Your task to perform on an android device: Open calendar and show me the fourth week of next month Image 0: 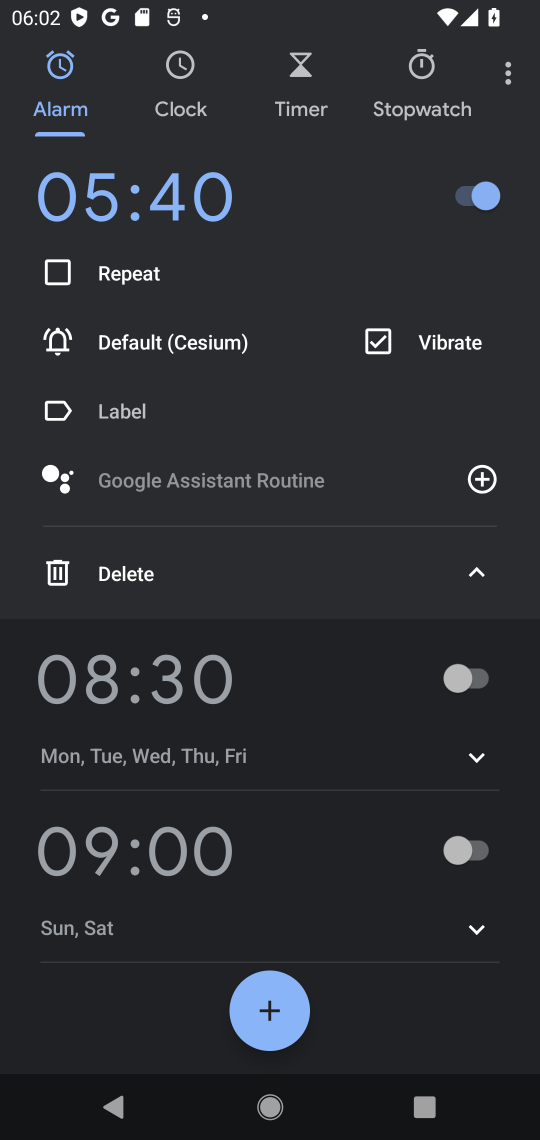
Step 0: press home button
Your task to perform on an android device: Open calendar and show me the fourth week of next month Image 1: 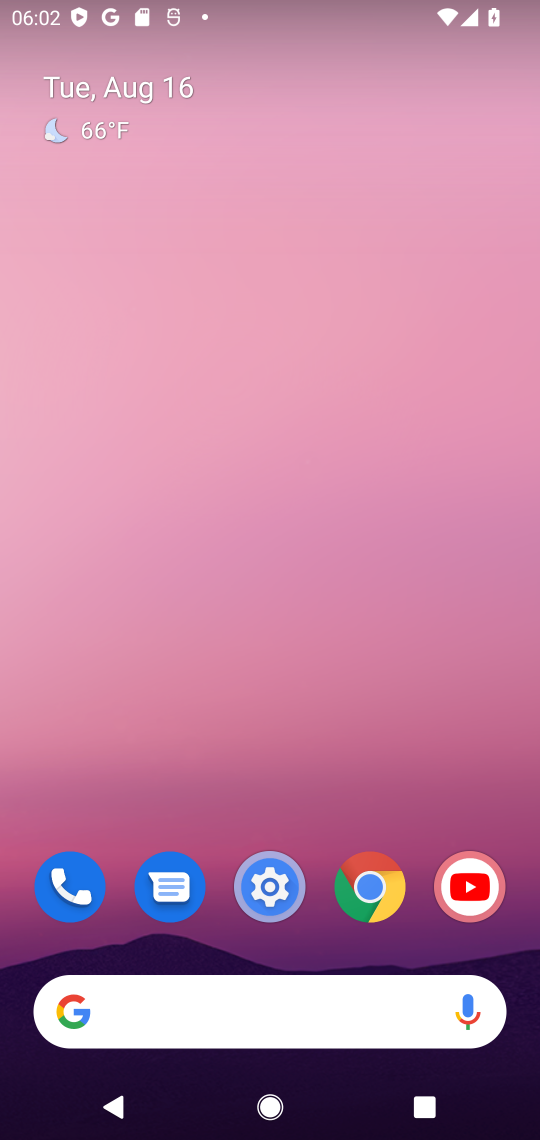
Step 1: drag from (266, 746) to (273, 662)
Your task to perform on an android device: Open calendar and show me the fourth week of next month Image 2: 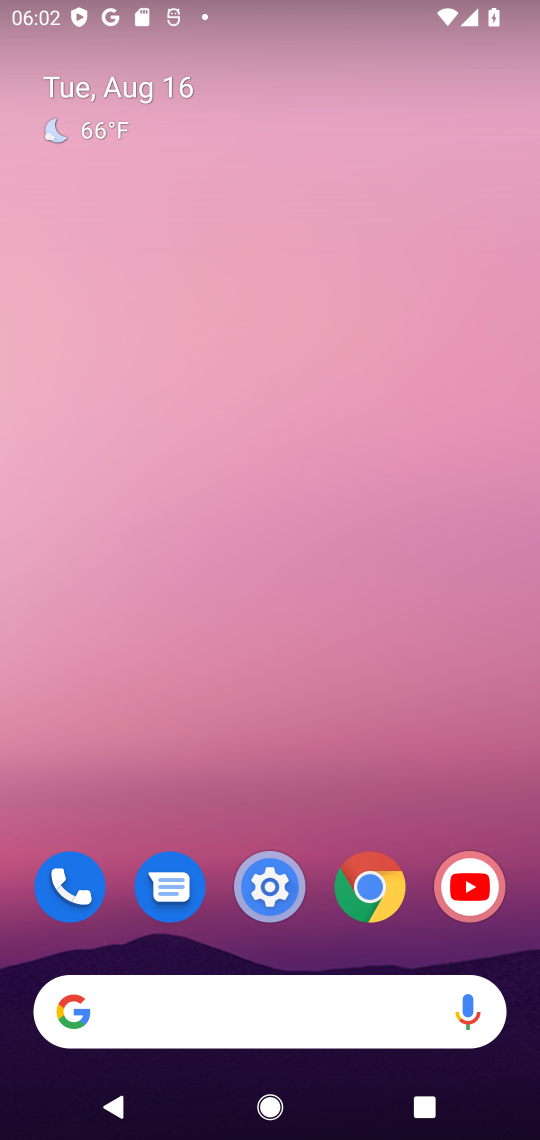
Step 2: click (169, 89)
Your task to perform on an android device: Open calendar and show me the fourth week of next month Image 3: 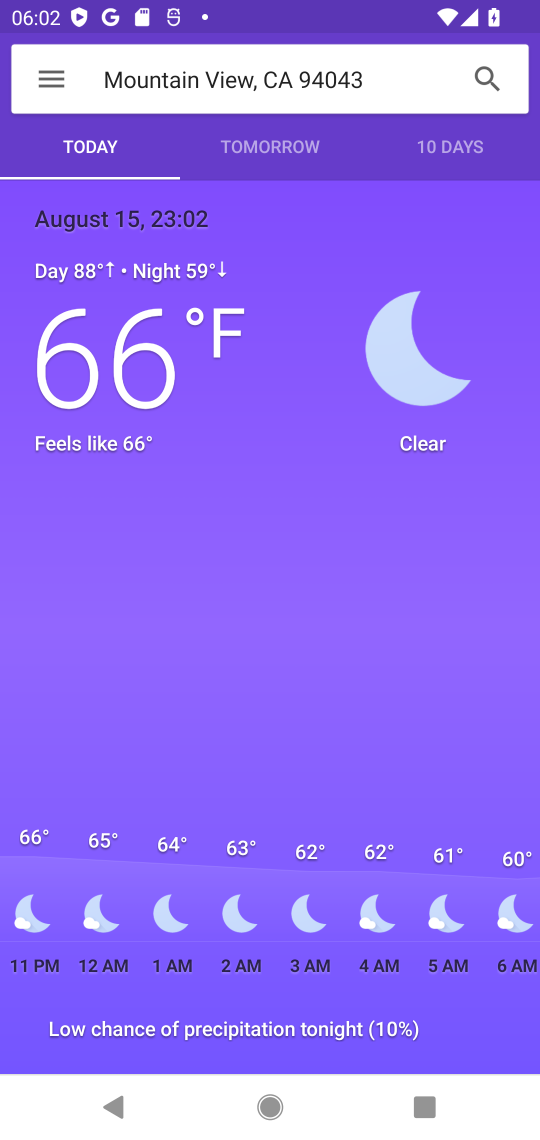
Step 3: press home button
Your task to perform on an android device: Open calendar and show me the fourth week of next month Image 4: 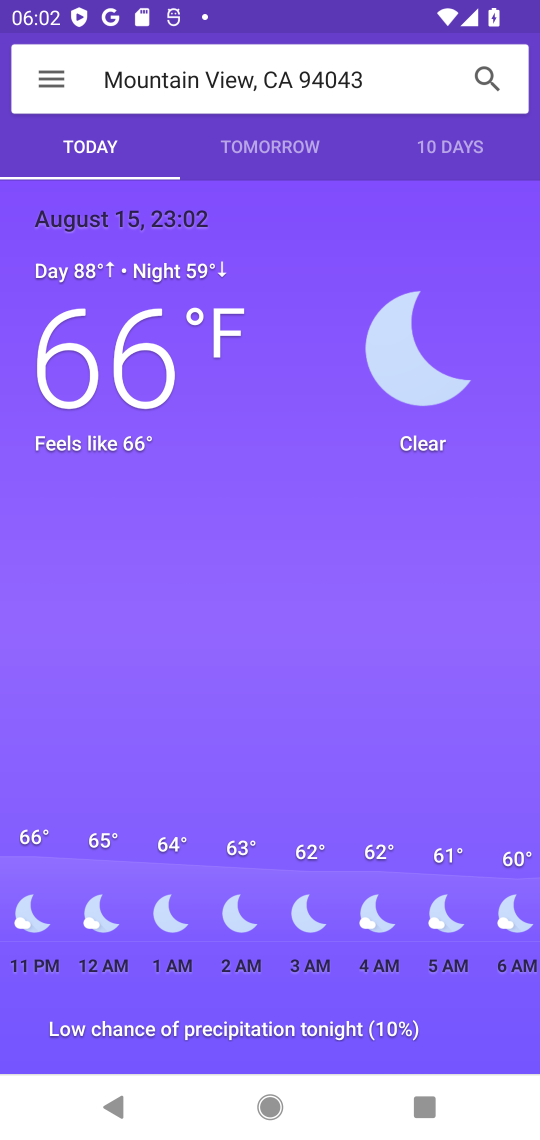
Step 4: press home button
Your task to perform on an android device: Open calendar and show me the fourth week of next month Image 5: 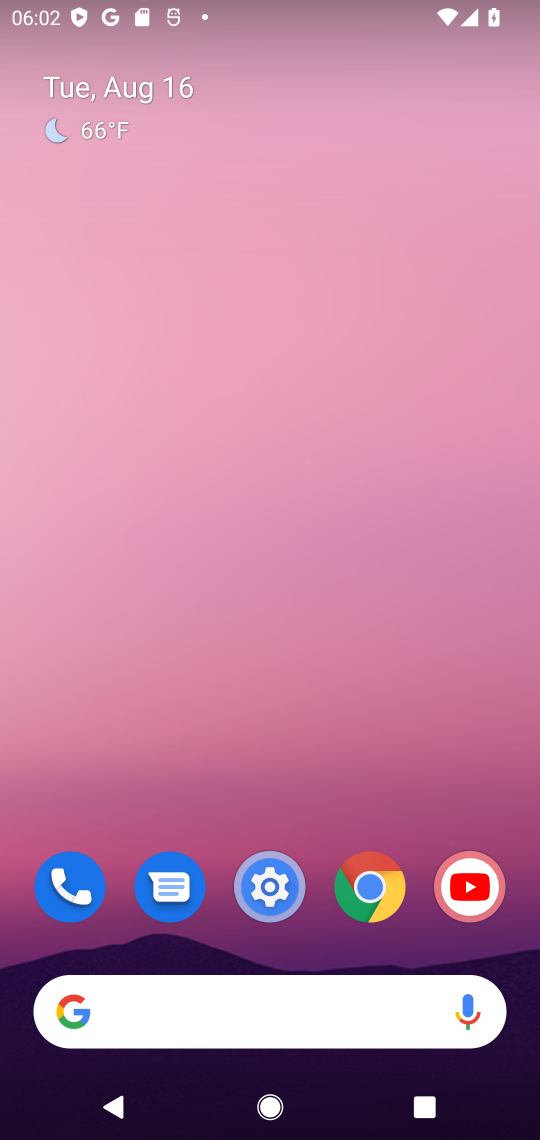
Step 5: click (67, 88)
Your task to perform on an android device: Open calendar and show me the fourth week of next month Image 6: 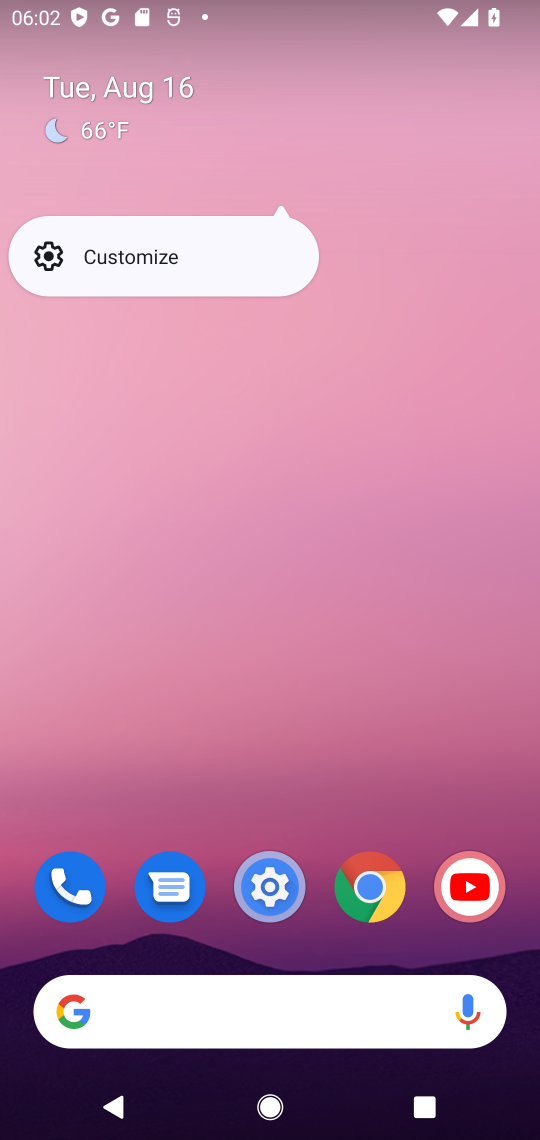
Step 6: click (111, 88)
Your task to perform on an android device: Open calendar and show me the fourth week of next month Image 7: 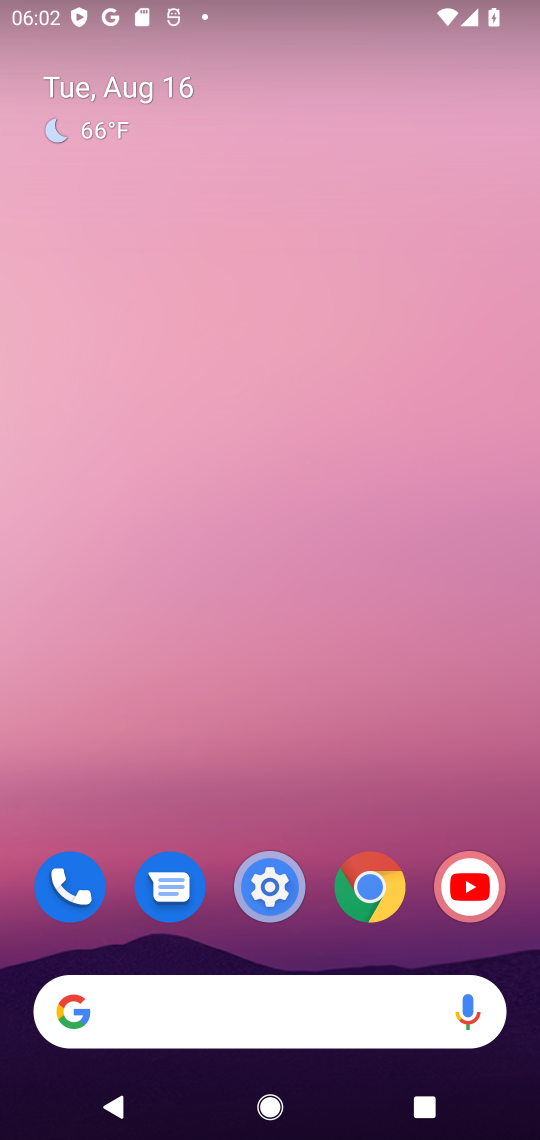
Step 7: click (170, 92)
Your task to perform on an android device: Open calendar and show me the fourth week of next month Image 8: 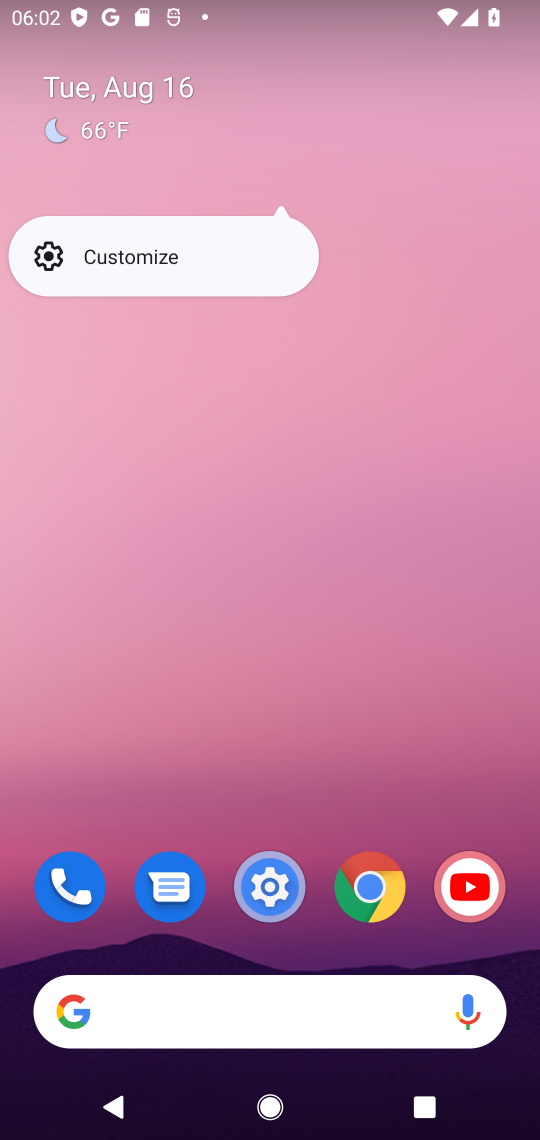
Step 8: click (452, 804)
Your task to perform on an android device: Open calendar and show me the fourth week of next month Image 9: 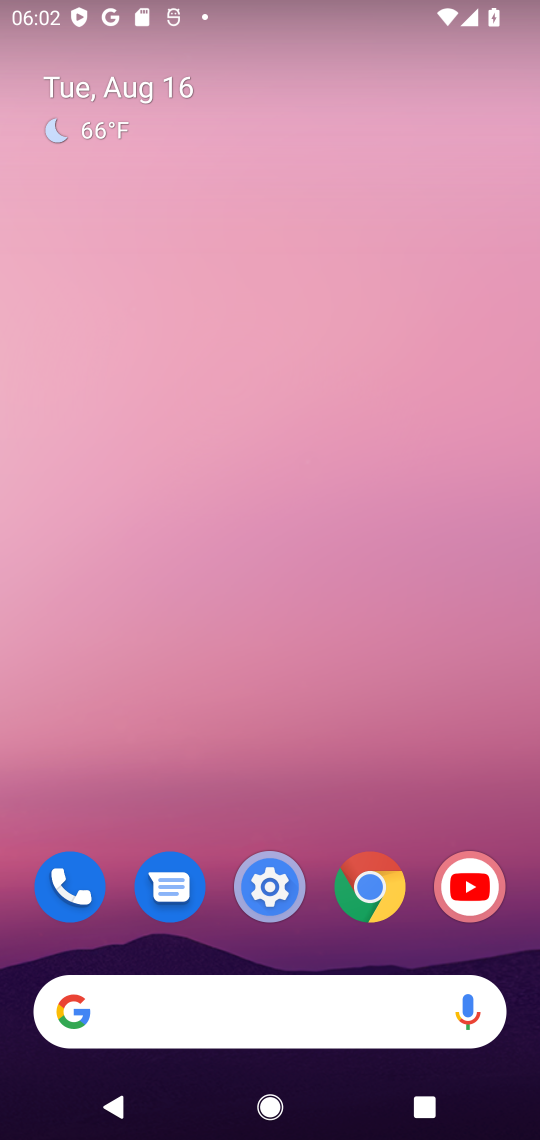
Step 9: drag from (442, 758) to (365, 136)
Your task to perform on an android device: Open calendar and show me the fourth week of next month Image 10: 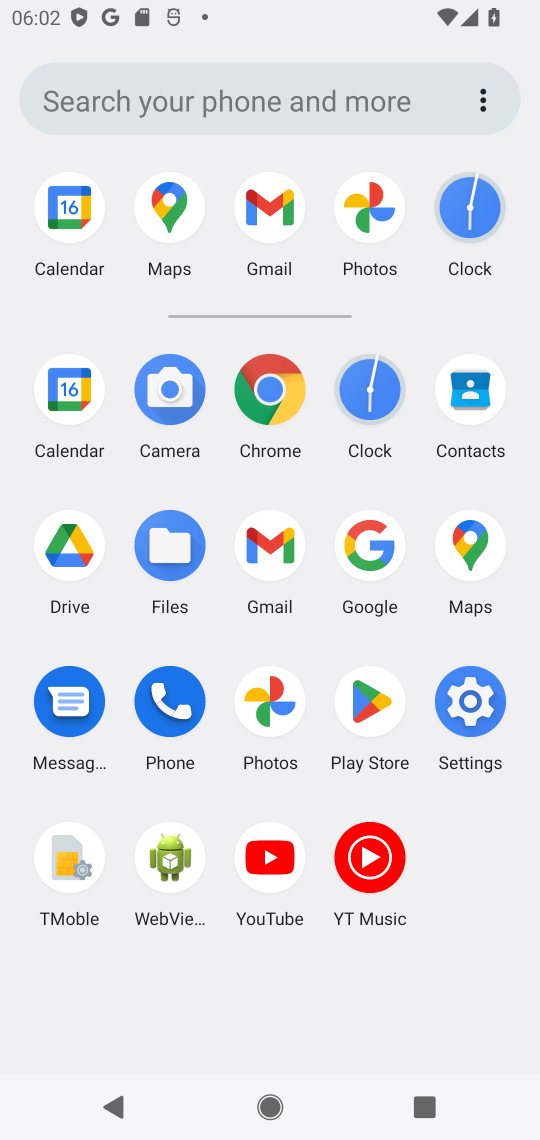
Step 10: click (56, 224)
Your task to perform on an android device: Open calendar and show me the fourth week of next month Image 11: 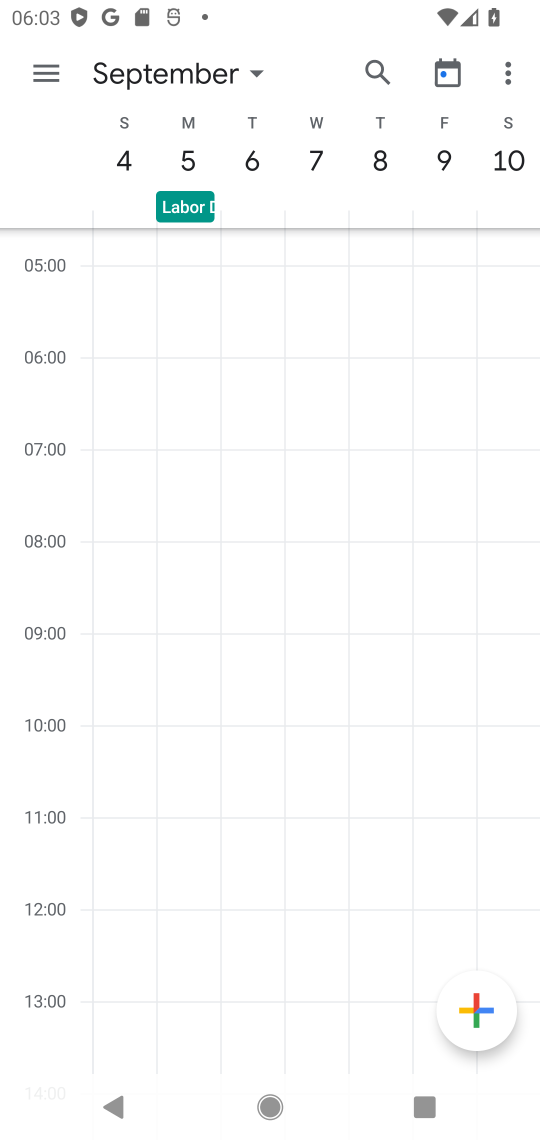
Step 11: click (159, 54)
Your task to perform on an android device: Open calendar and show me the fourth week of next month Image 12: 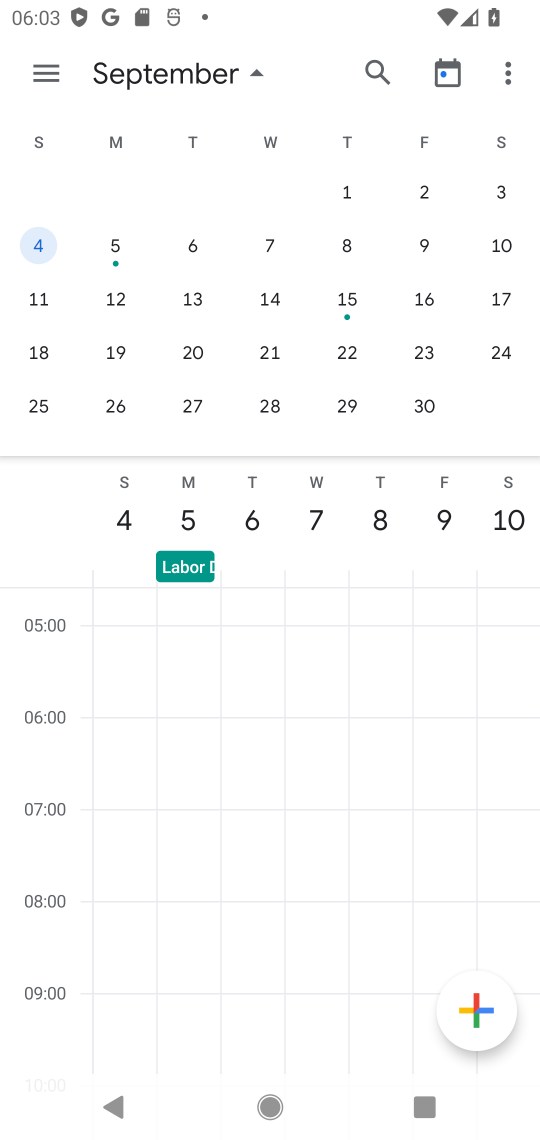
Step 12: click (197, 419)
Your task to perform on an android device: Open calendar and show me the fourth week of next month Image 13: 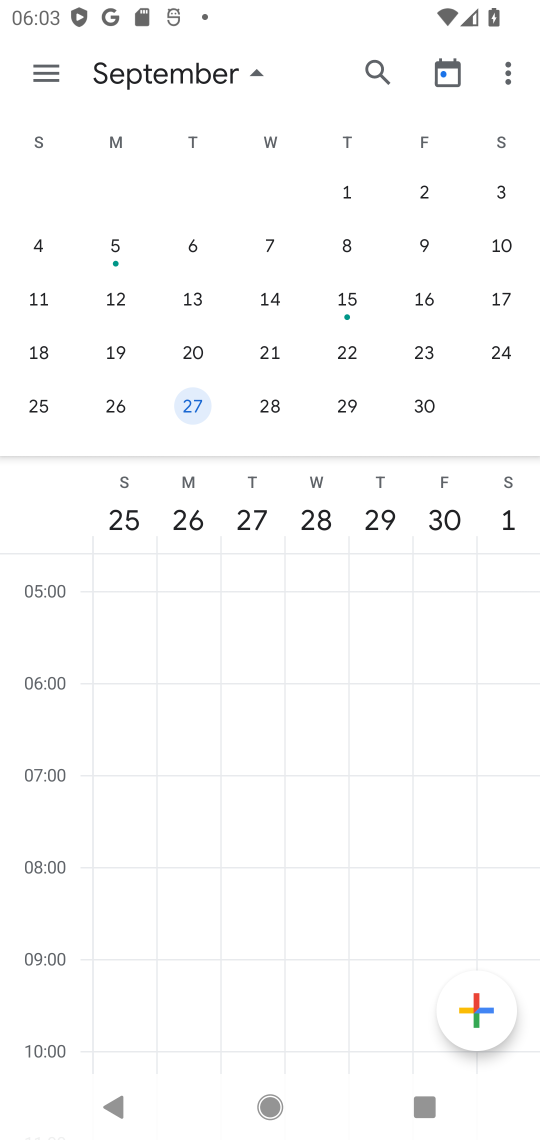
Step 13: task complete